Your task to perform on an android device: change the clock display to show seconds Image 0: 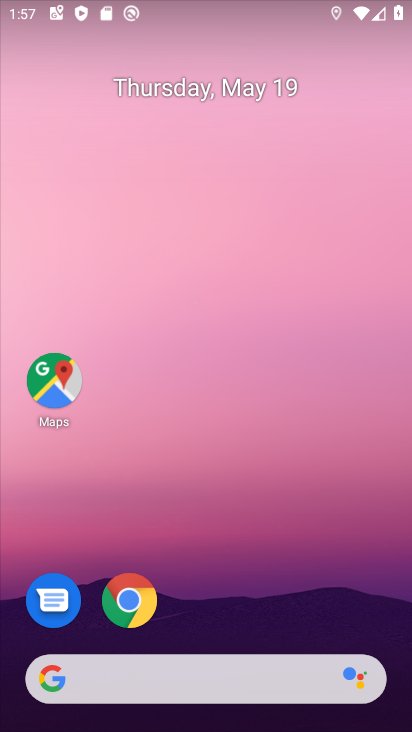
Step 0: press home button
Your task to perform on an android device: change the clock display to show seconds Image 1: 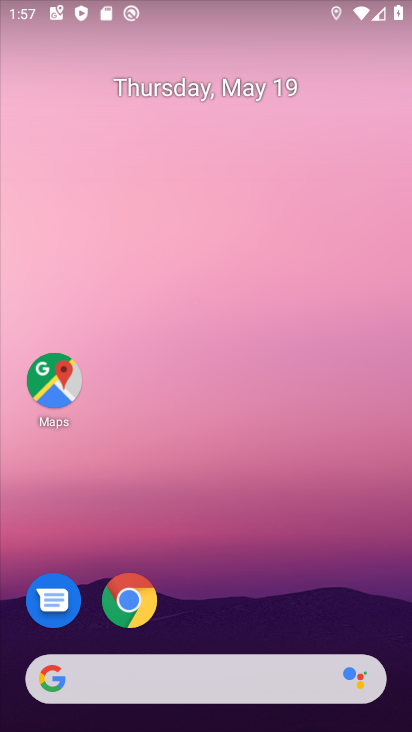
Step 1: drag from (54, 496) to (153, 120)
Your task to perform on an android device: change the clock display to show seconds Image 2: 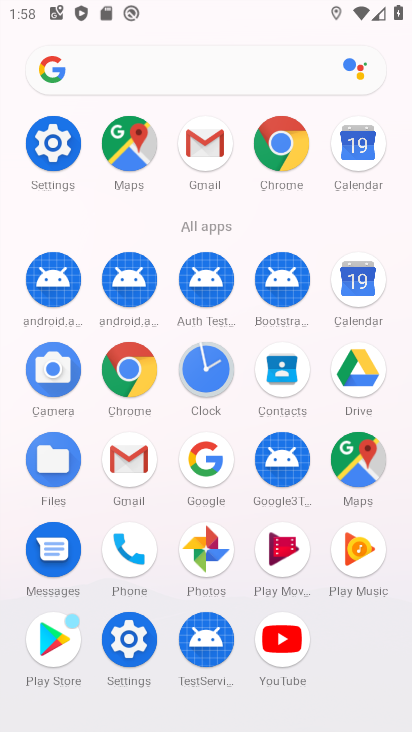
Step 2: click (194, 371)
Your task to perform on an android device: change the clock display to show seconds Image 3: 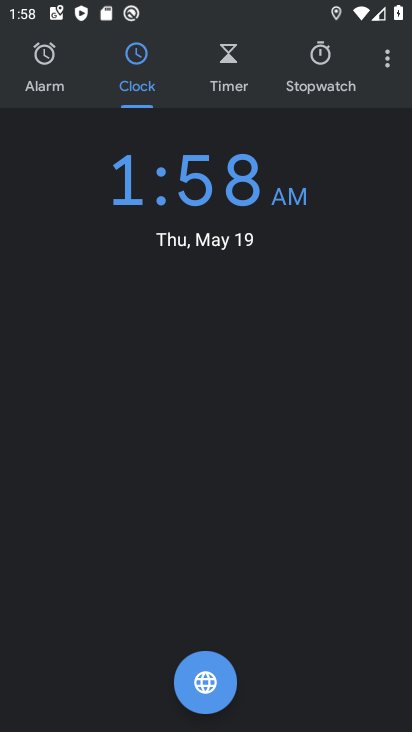
Step 3: click (379, 60)
Your task to perform on an android device: change the clock display to show seconds Image 4: 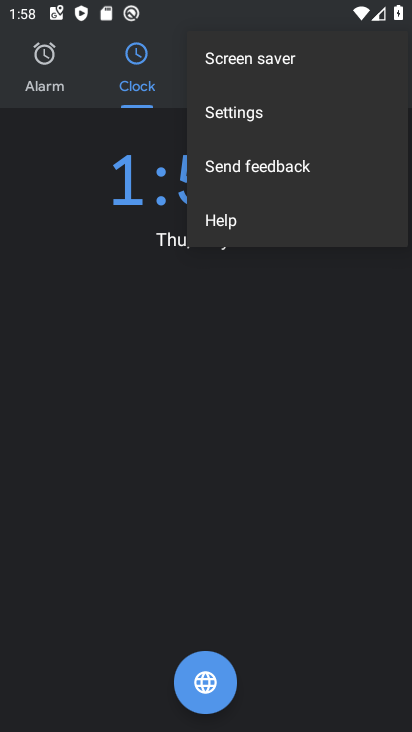
Step 4: click (300, 114)
Your task to perform on an android device: change the clock display to show seconds Image 5: 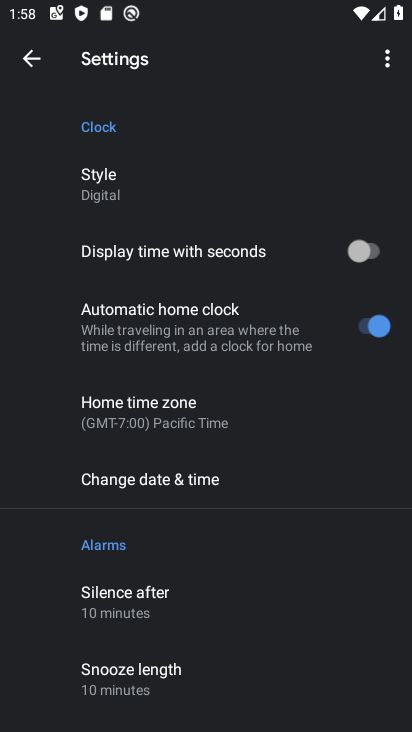
Step 5: click (348, 263)
Your task to perform on an android device: change the clock display to show seconds Image 6: 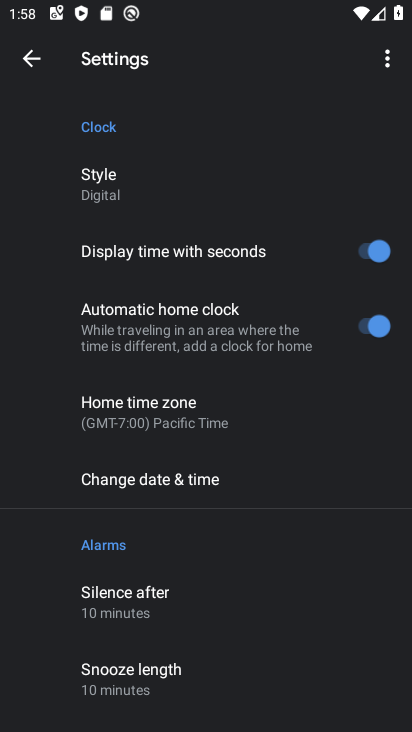
Step 6: task complete